Your task to perform on an android device: choose inbox layout in the gmail app Image 0: 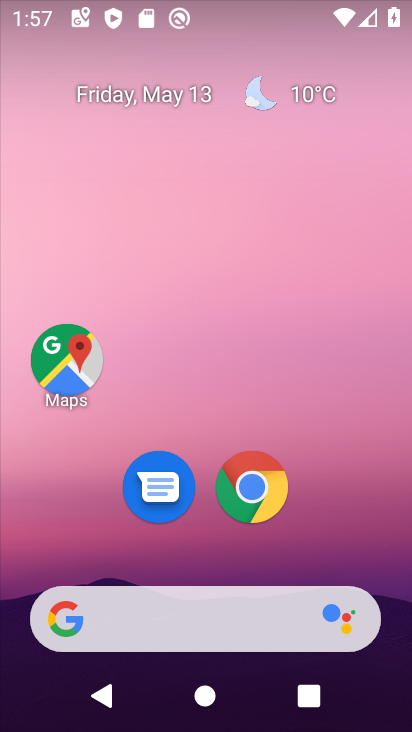
Step 0: drag from (206, 395) to (231, 211)
Your task to perform on an android device: choose inbox layout in the gmail app Image 1: 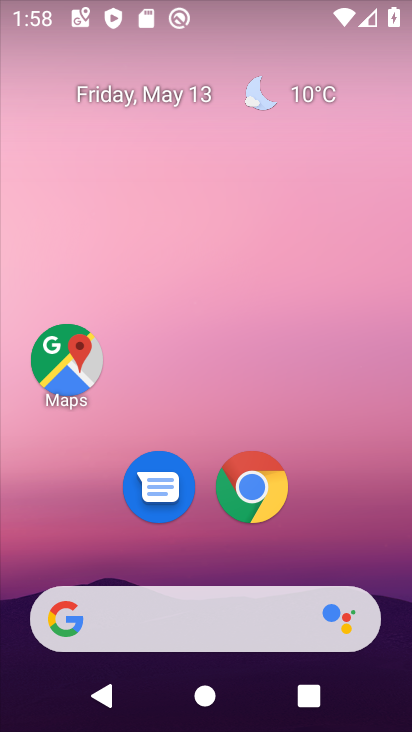
Step 1: drag from (197, 564) to (248, 145)
Your task to perform on an android device: choose inbox layout in the gmail app Image 2: 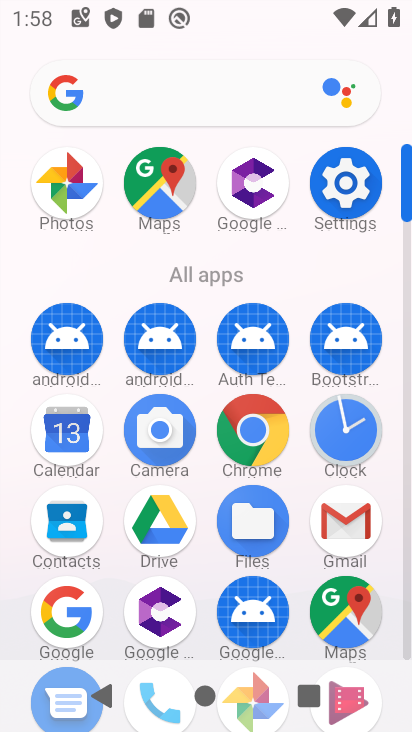
Step 2: click (345, 526)
Your task to perform on an android device: choose inbox layout in the gmail app Image 3: 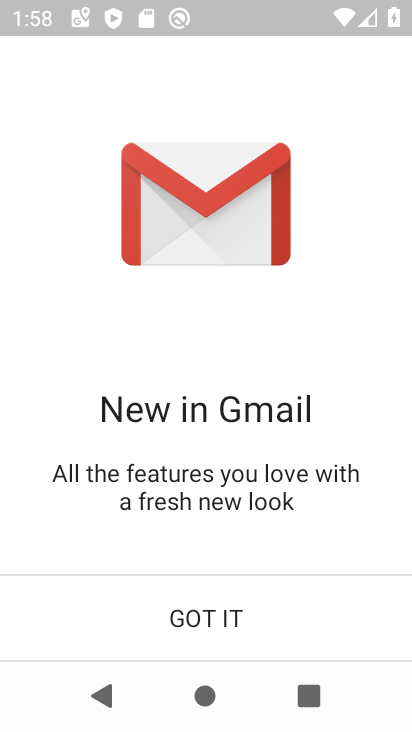
Step 3: click (205, 610)
Your task to perform on an android device: choose inbox layout in the gmail app Image 4: 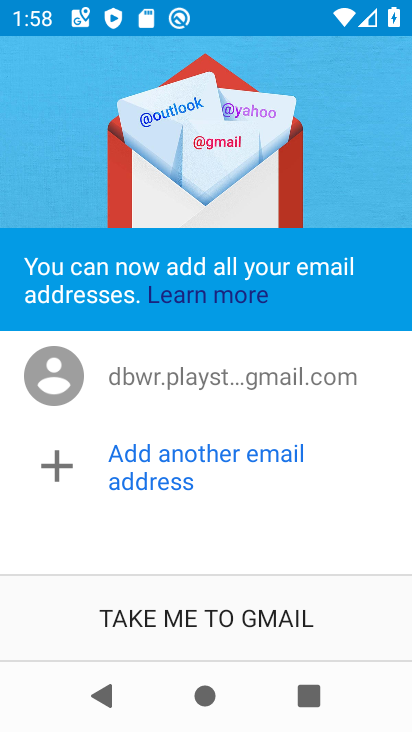
Step 4: click (213, 607)
Your task to perform on an android device: choose inbox layout in the gmail app Image 5: 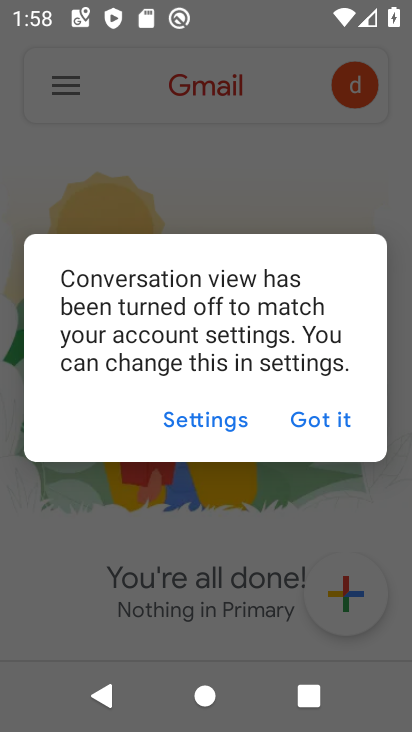
Step 5: click (312, 414)
Your task to perform on an android device: choose inbox layout in the gmail app Image 6: 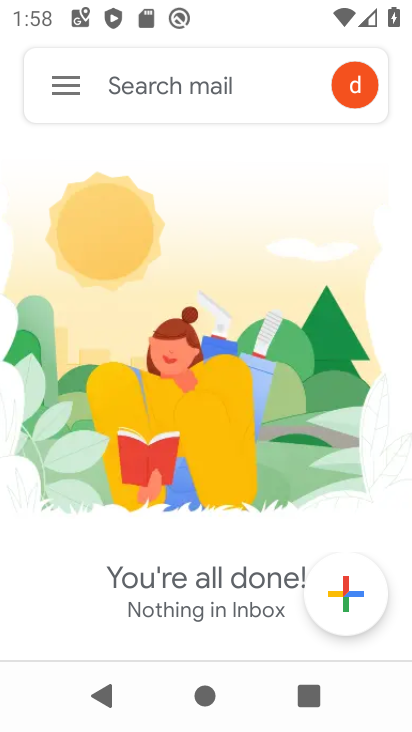
Step 6: click (62, 85)
Your task to perform on an android device: choose inbox layout in the gmail app Image 7: 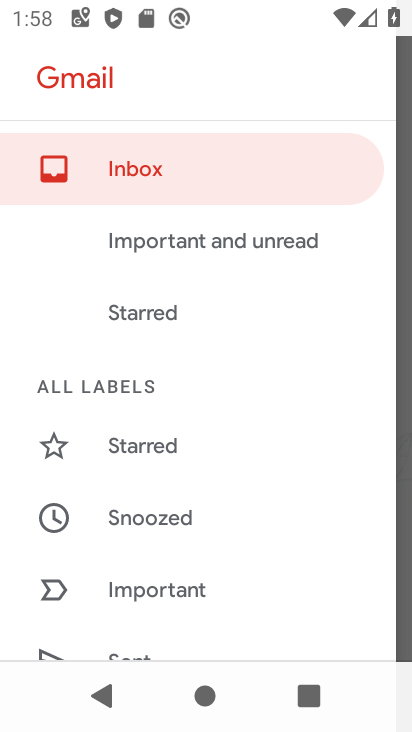
Step 7: drag from (167, 619) to (229, 200)
Your task to perform on an android device: choose inbox layout in the gmail app Image 8: 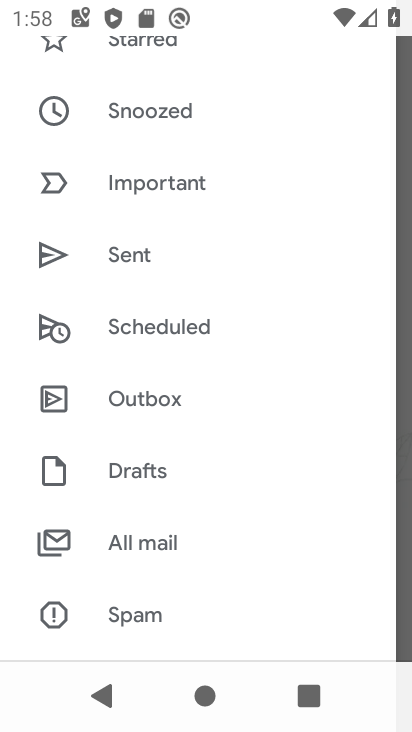
Step 8: drag from (210, 606) to (264, 281)
Your task to perform on an android device: choose inbox layout in the gmail app Image 9: 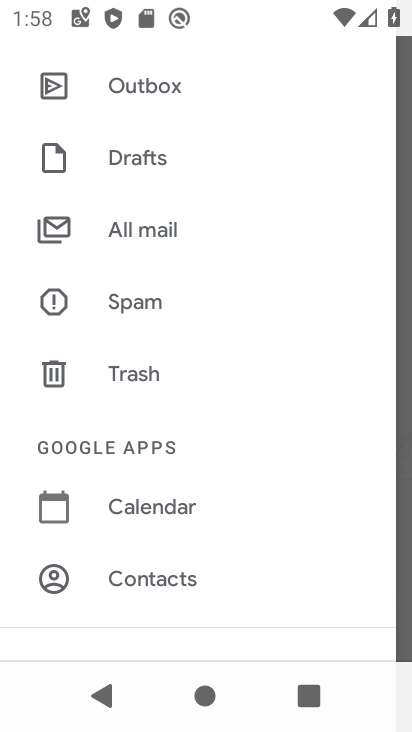
Step 9: drag from (163, 613) to (214, 256)
Your task to perform on an android device: choose inbox layout in the gmail app Image 10: 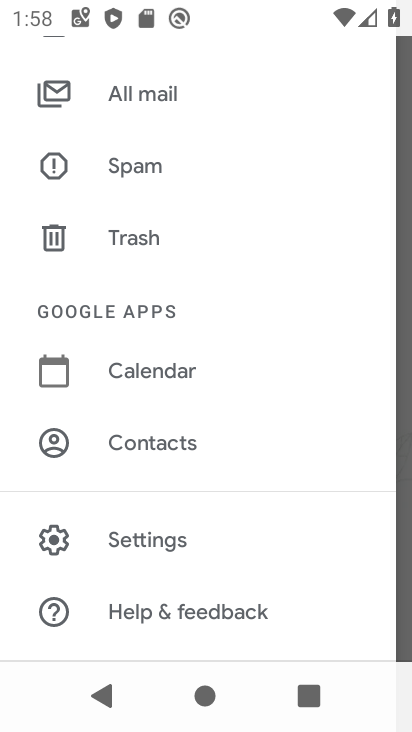
Step 10: click (168, 532)
Your task to perform on an android device: choose inbox layout in the gmail app Image 11: 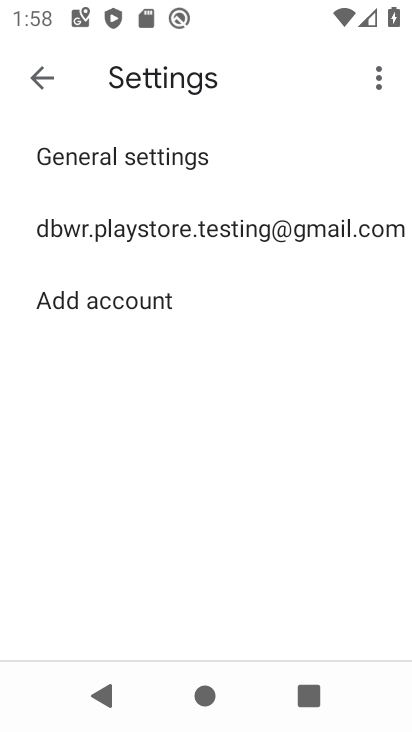
Step 11: click (213, 222)
Your task to perform on an android device: choose inbox layout in the gmail app Image 12: 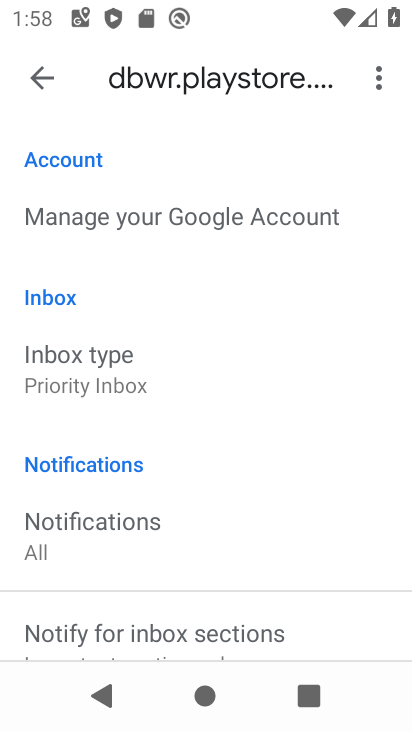
Step 12: click (121, 367)
Your task to perform on an android device: choose inbox layout in the gmail app Image 13: 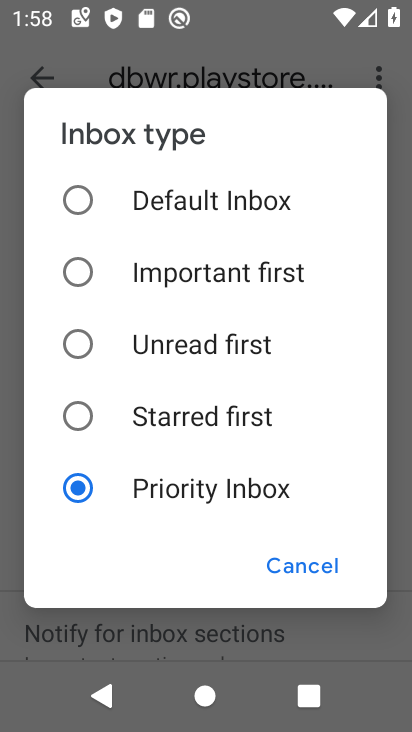
Step 13: click (173, 206)
Your task to perform on an android device: choose inbox layout in the gmail app Image 14: 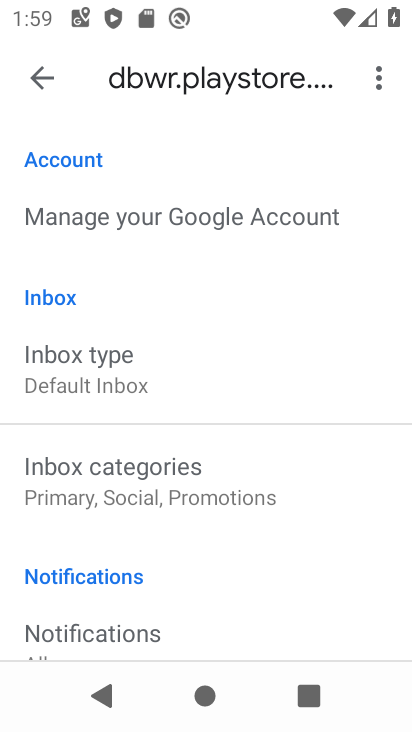
Step 14: task complete